Your task to perform on an android device: What is the news today? Image 0: 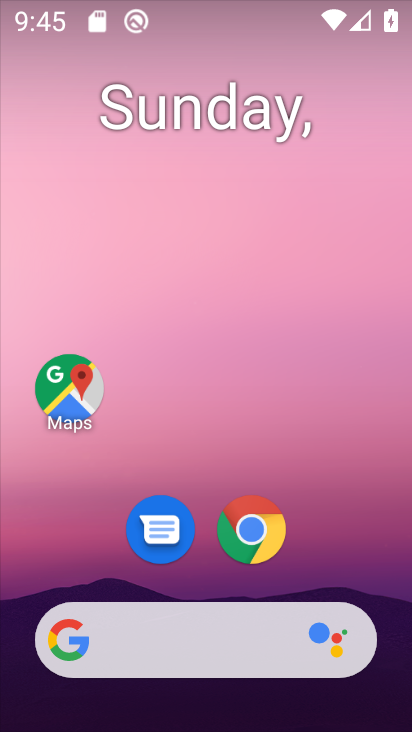
Step 0: drag from (345, 539) to (245, 6)
Your task to perform on an android device: What is the news today? Image 1: 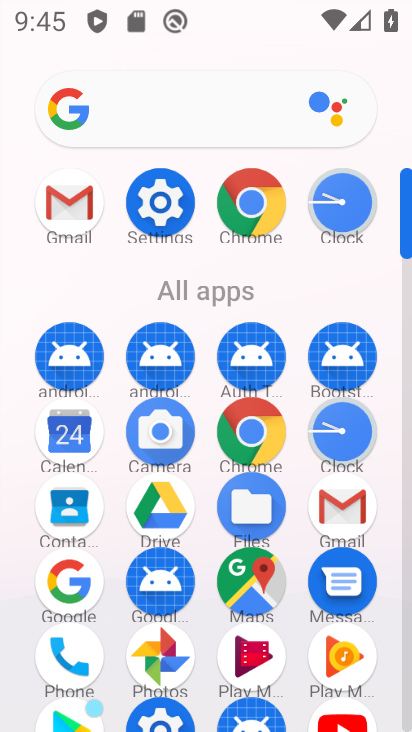
Step 1: click (72, 584)
Your task to perform on an android device: What is the news today? Image 2: 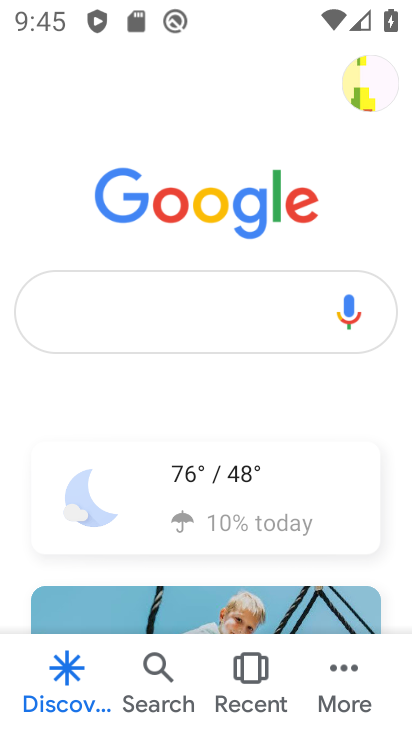
Step 2: task complete